Your task to perform on an android device: Open ESPN.com Image 0: 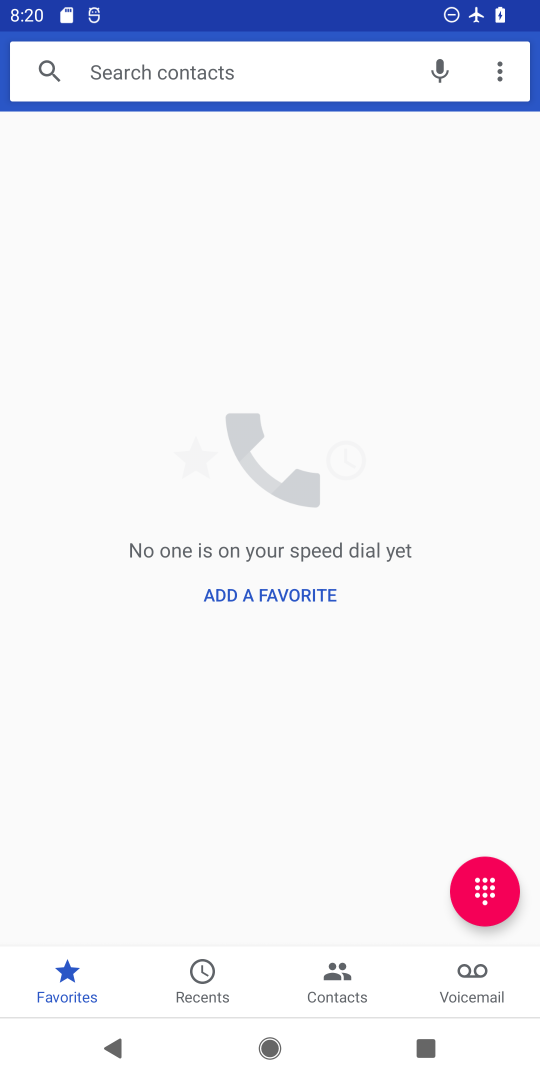
Step 0: press home button
Your task to perform on an android device: Open ESPN.com Image 1: 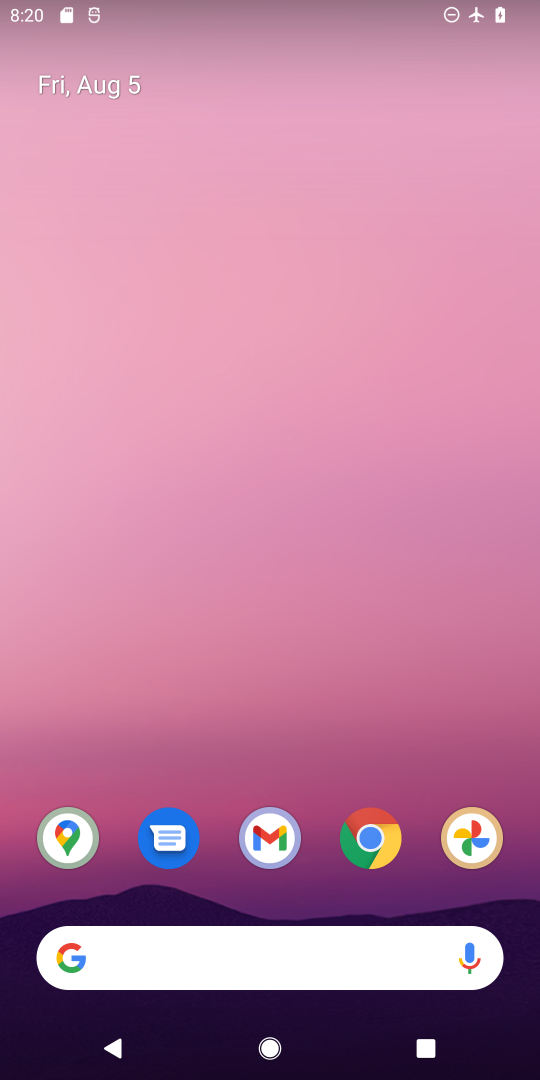
Step 1: drag from (282, 914) to (258, 365)
Your task to perform on an android device: Open ESPN.com Image 2: 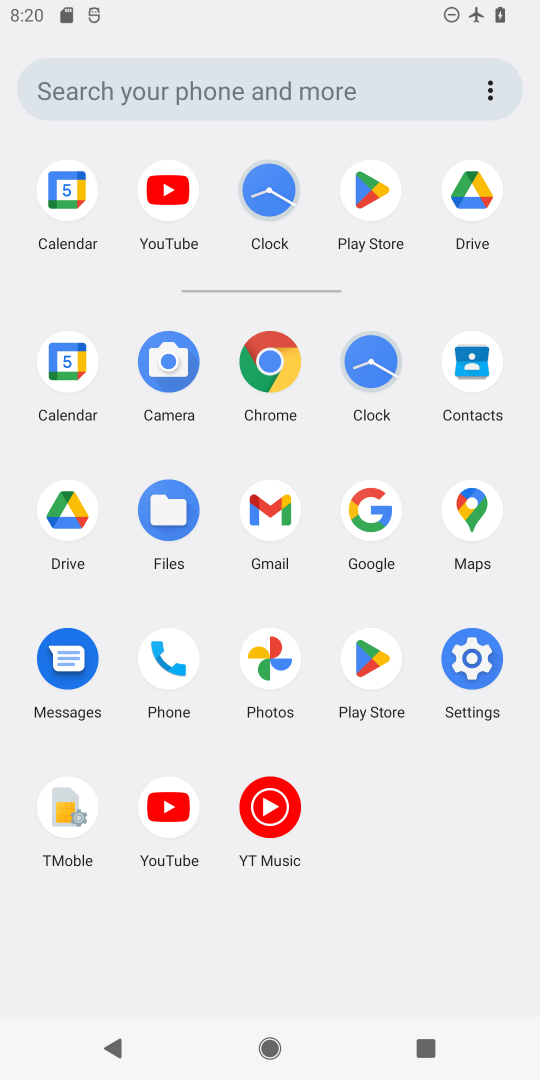
Step 2: click (253, 372)
Your task to perform on an android device: Open ESPN.com Image 3: 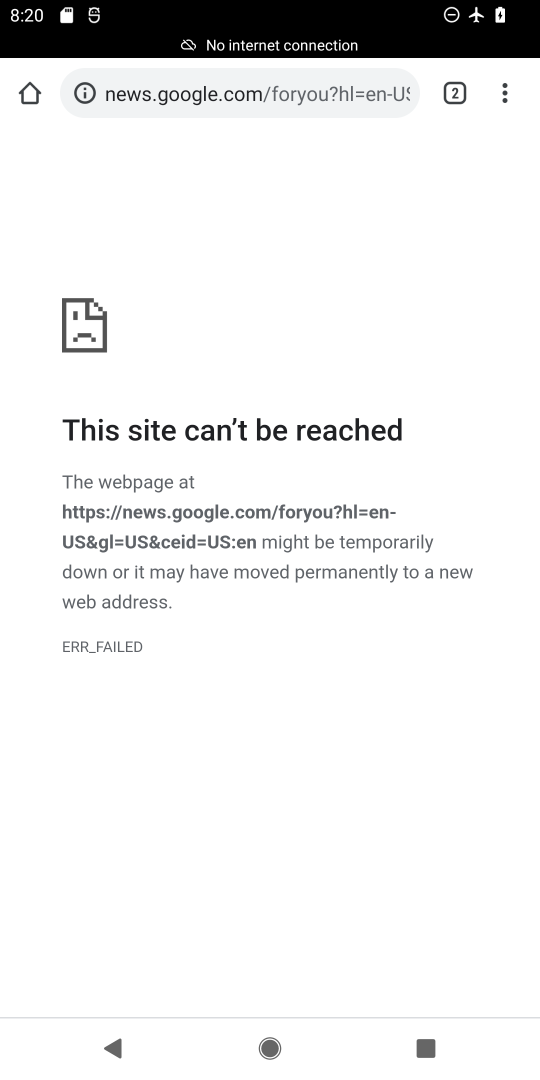
Step 3: click (452, 95)
Your task to perform on an android device: Open ESPN.com Image 4: 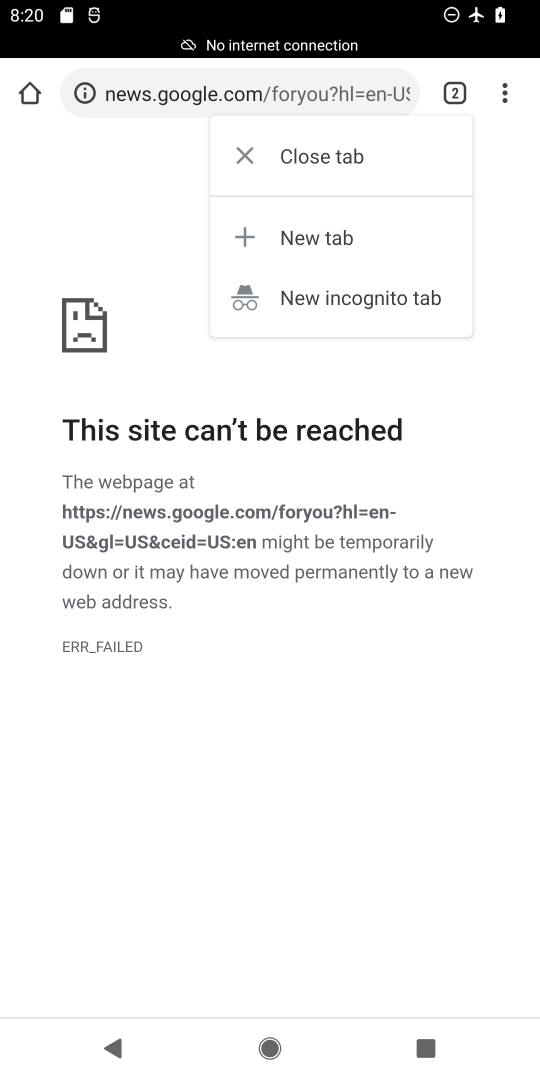
Step 4: click (248, 150)
Your task to perform on an android device: Open ESPN.com Image 5: 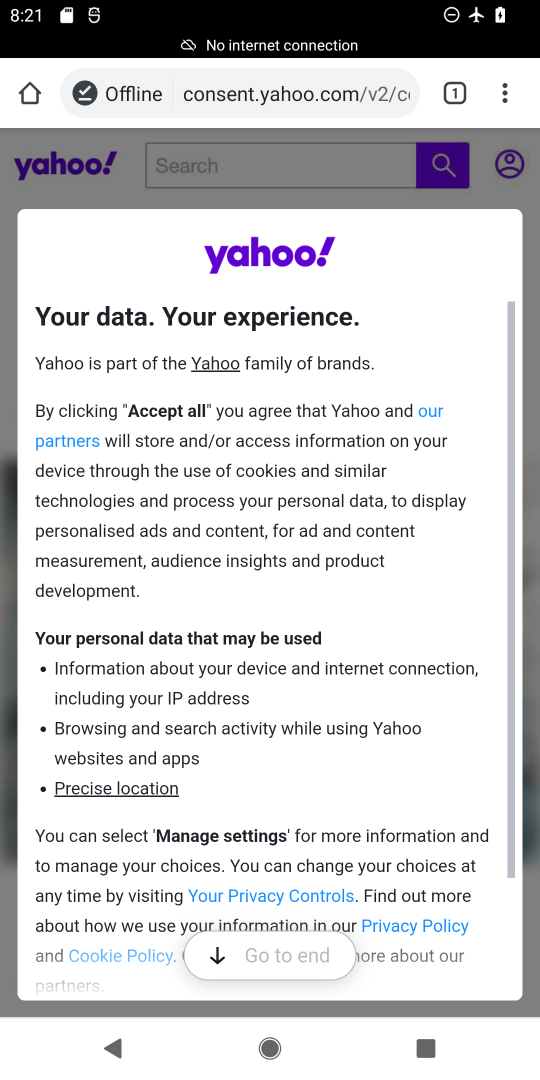
Step 5: click (444, 88)
Your task to perform on an android device: Open ESPN.com Image 6: 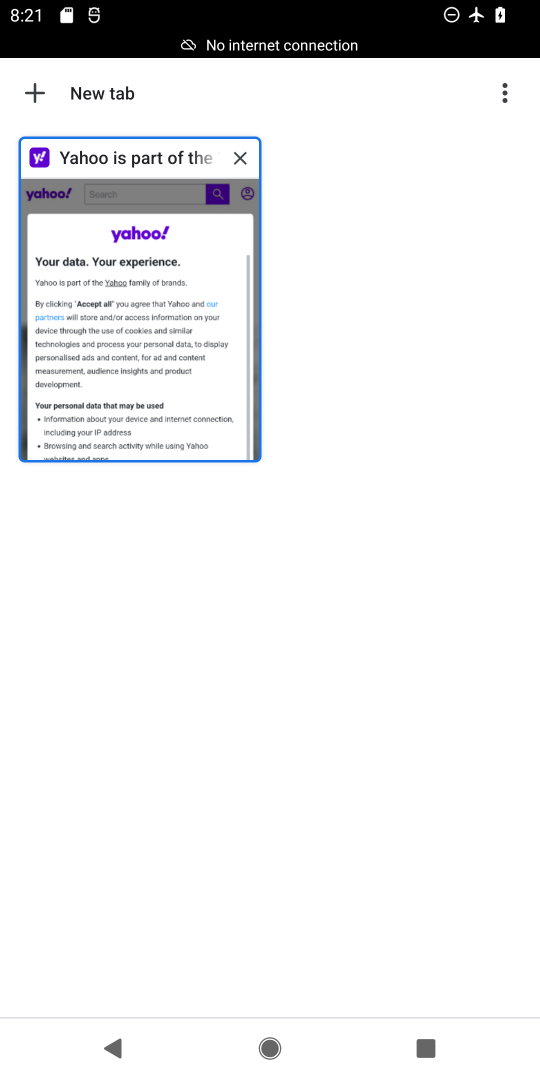
Step 6: click (235, 160)
Your task to perform on an android device: Open ESPN.com Image 7: 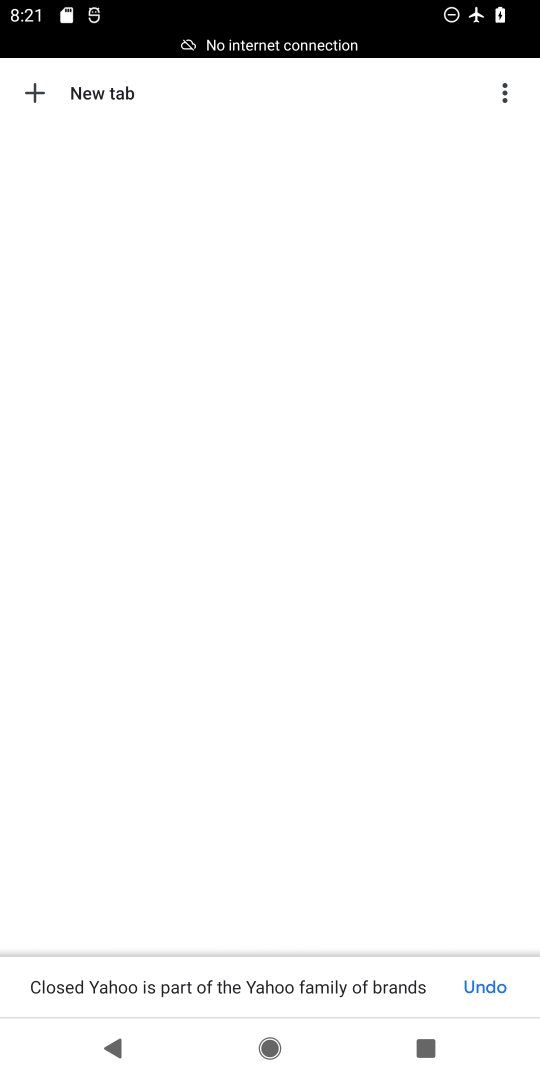
Step 7: click (33, 102)
Your task to perform on an android device: Open ESPN.com Image 8: 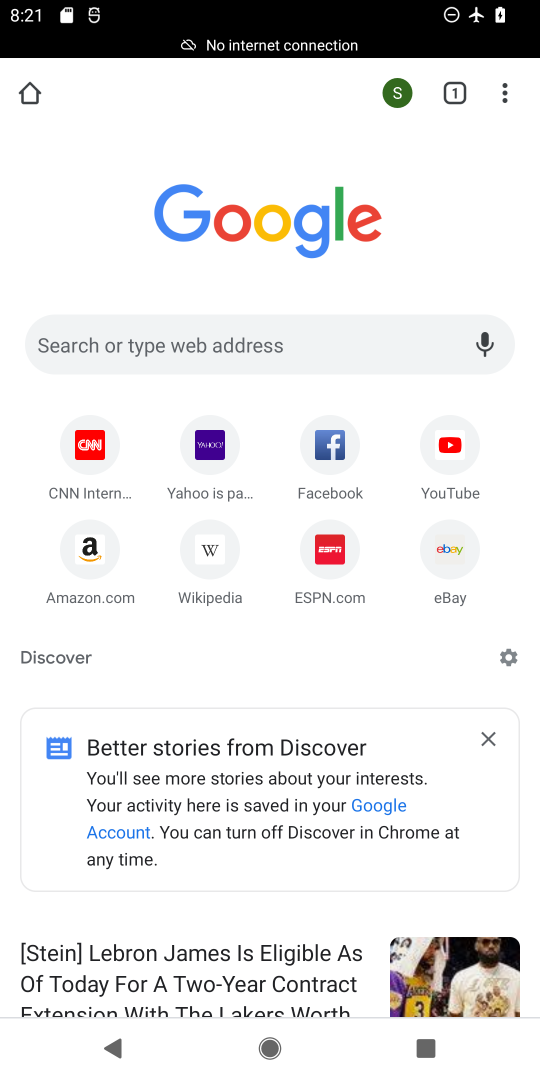
Step 8: click (340, 555)
Your task to perform on an android device: Open ESPN.com Image 9: 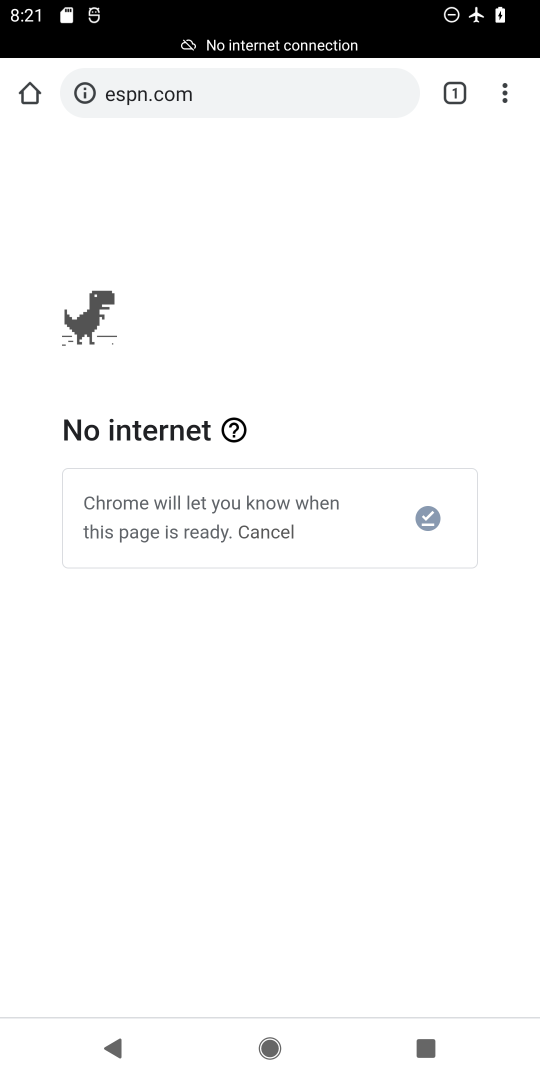
Step 9: task complete